Your task to perform on an android device: Open Reddit.com Image 0: 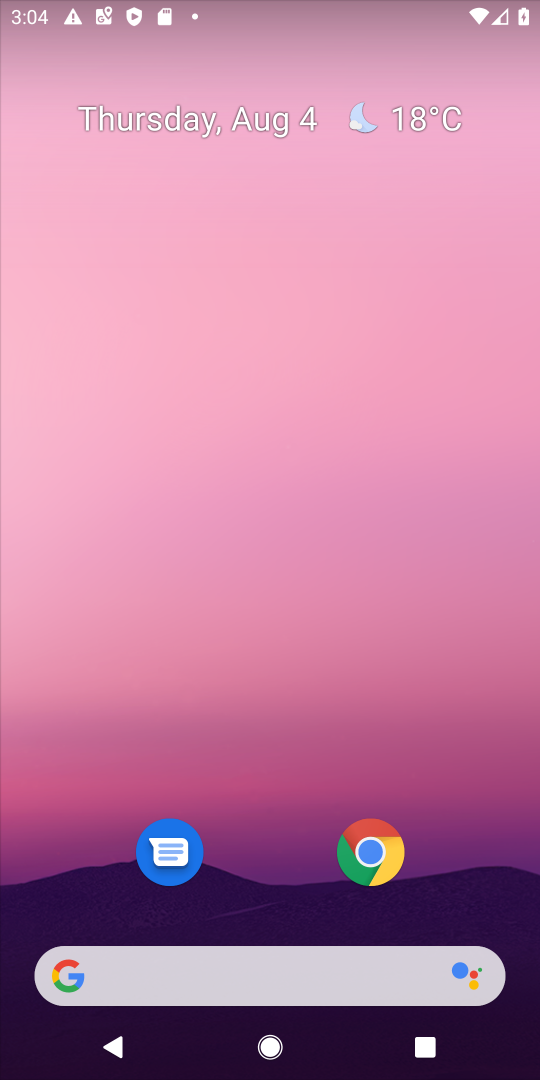
Step 0: click (354, 842)
Your task to perform on an android device: Open Reddit.com Image 1: 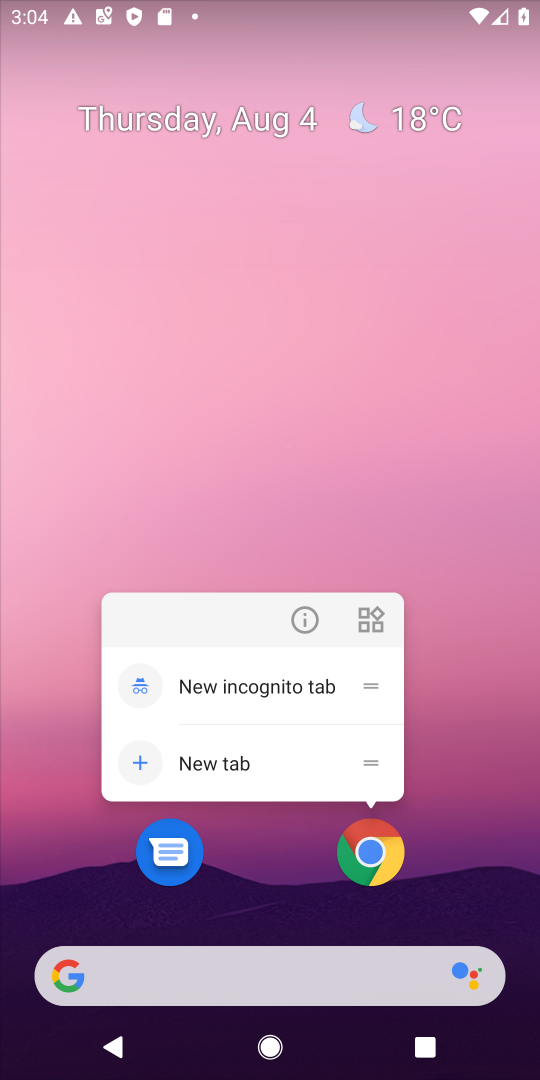
Step 1: click (380, 849)
Your task to perform on an android device: Open Reddit.com Image 2: 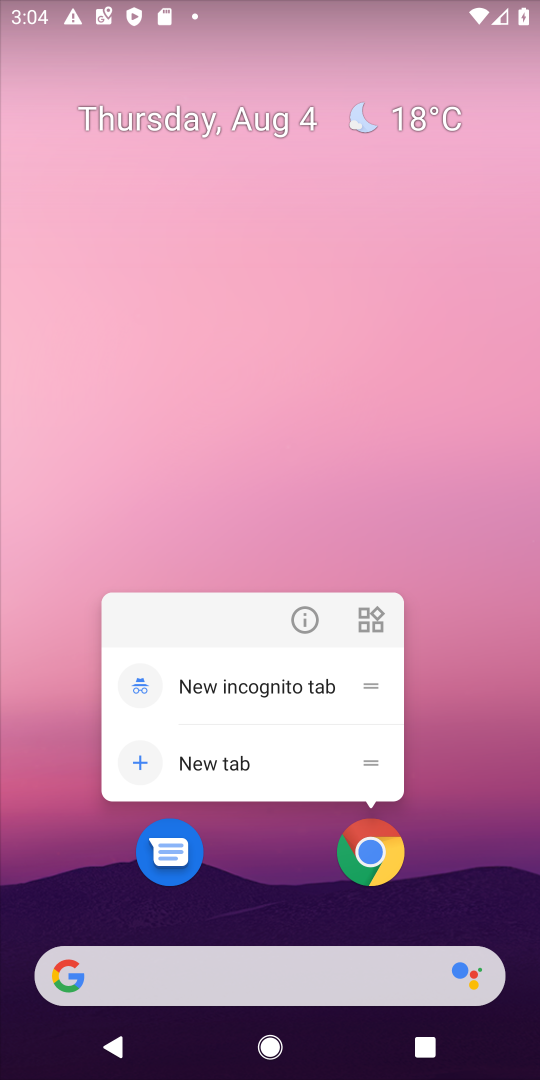
Step 2: click (360, 848)
Your task to perform on an android device: Open Reddit.com Image 3: 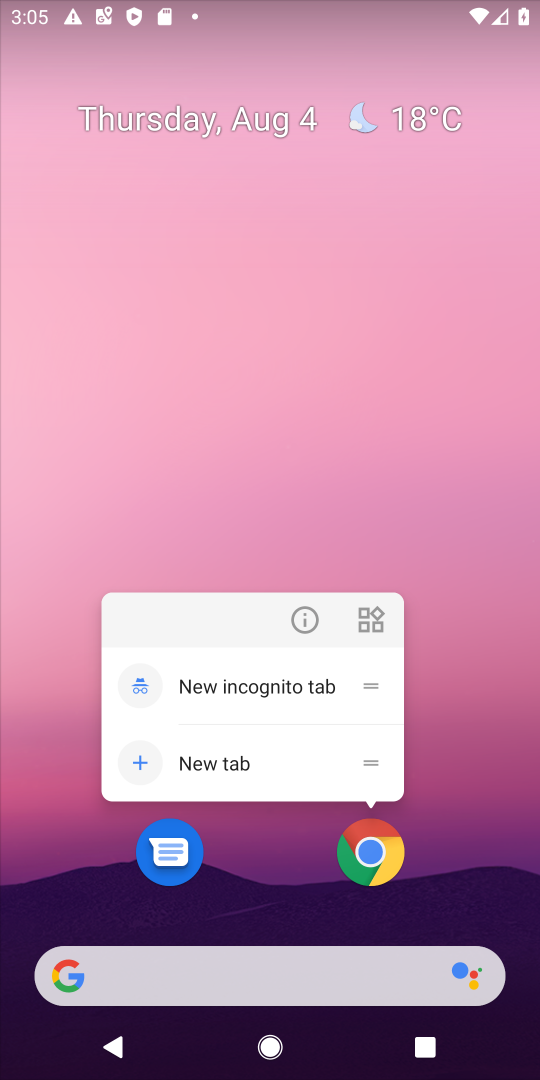
Step 3: click (378, 854)
Your task to perform on an android device: Open Reddit.com Image 4: 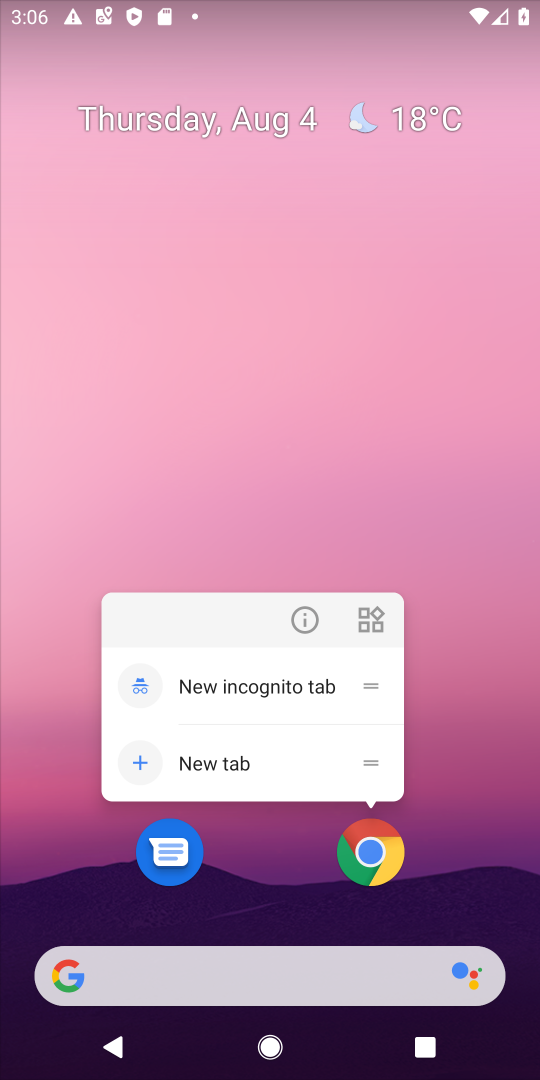
Step 4: click (378, 853)
Your task to perform on an android device: Open Reddit.com Image 5: 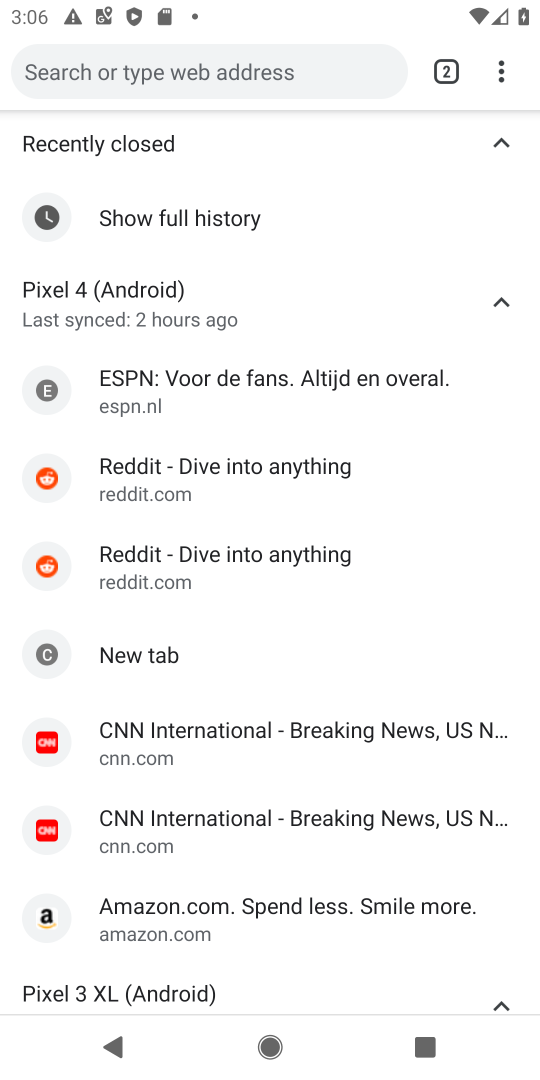
Step 5: task complete